Your task to perform on an android device: toggle show notifications on the lock screen Image 0: 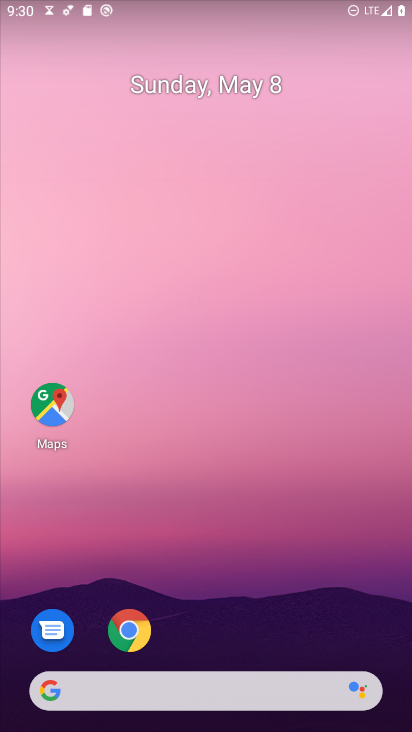
Step 0: drag from (273, 219) to (306, 93)
Your task to perform on an android device: toggle show notifications on the lock screen Image 1: 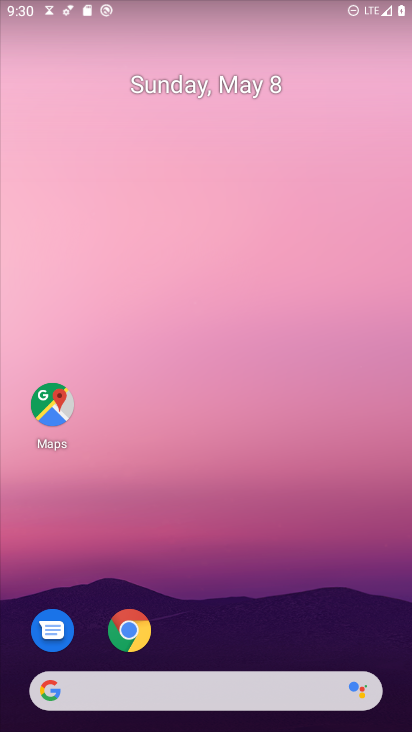
Step 1: drag from (201, 699) to (335, 98)
Your task to perform on an android device: toggle show notifications on the lock screen Image 2: 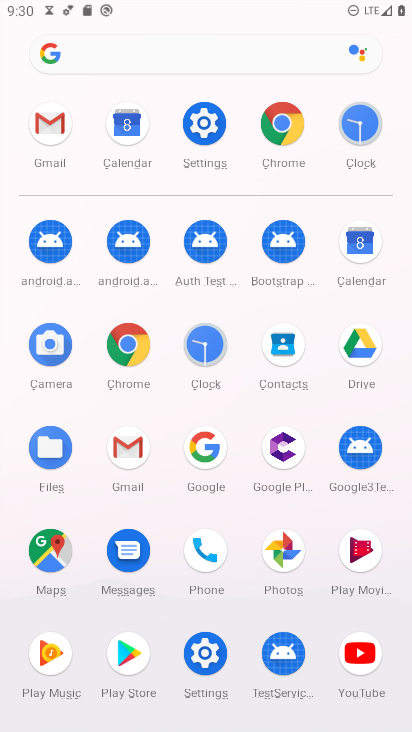
Step 2: click (212, 128)
Your task to perform on an android device: toggle show notifications on the lock screen Image 3: 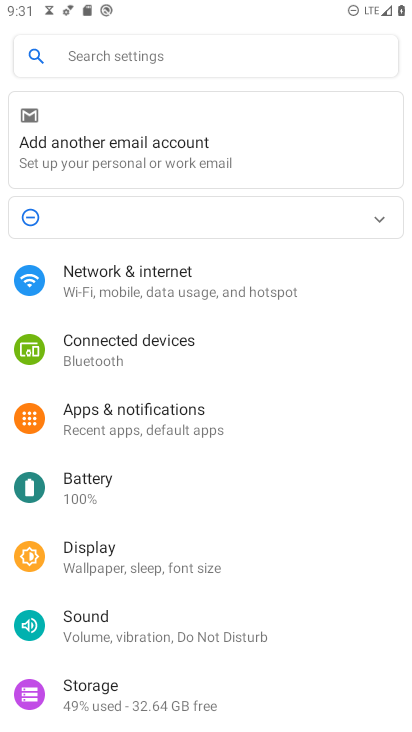
Step 3: click (133, 408)
Your task to perform on an android device: toggle show notifications on the lock screen Image 4: 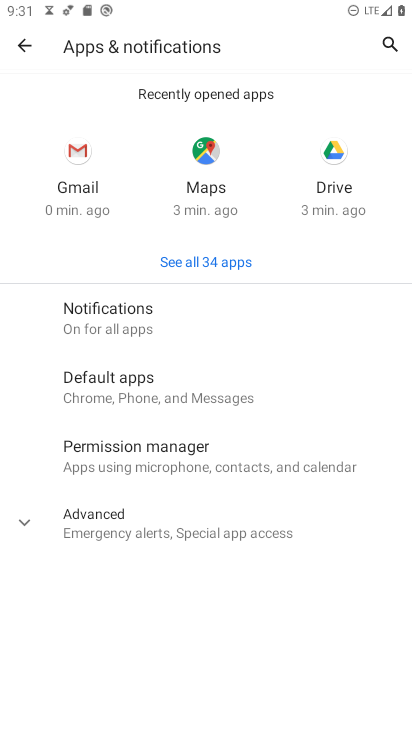
Step 4: click (125, 312)
Your task to perform on an android device: toggle show notifications on the lock screen Image 5: 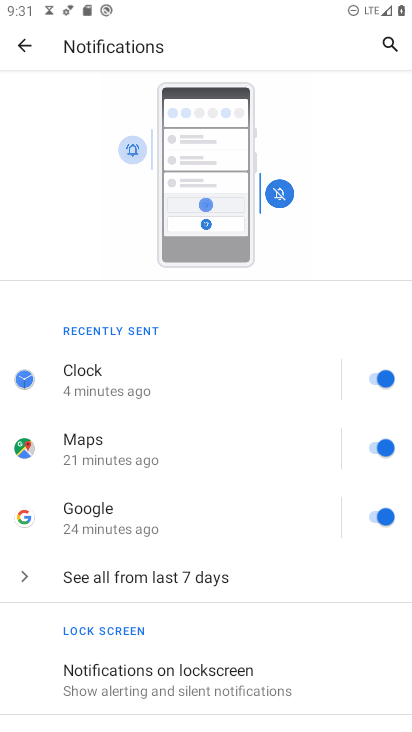
Step 5: click (172, 676)
Your task to perform on an android device: toggle show notifications on the lock screen Image 6: 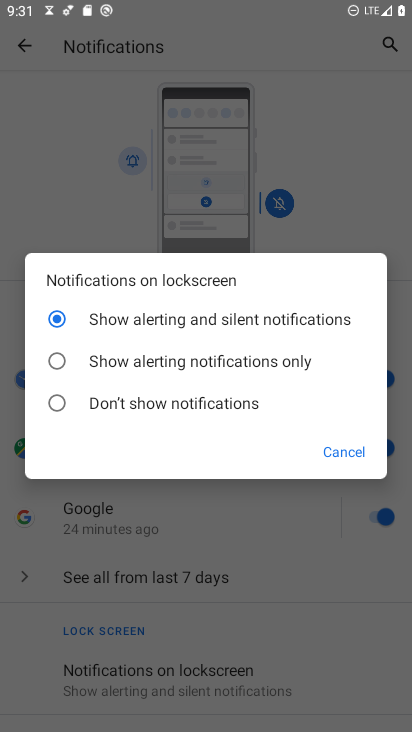
Step 6: click (59, 356)
Your task to perform on an android device: toggle show notifications on the lock screen Image 7: 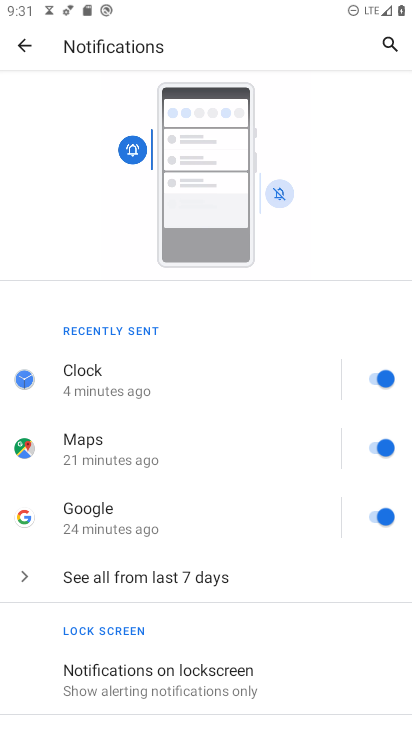
Step 7: task complete